Your task to perform on an android device: Go to Google maps Image 0: 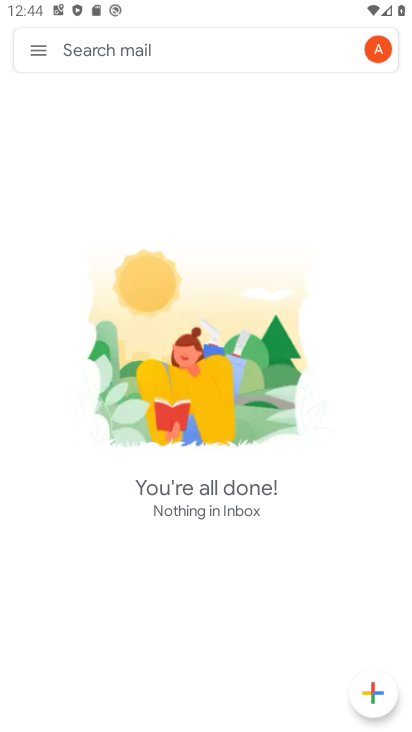
Step 0: press home button
Your task to perform on an android device: Go to Google maps Image 1: 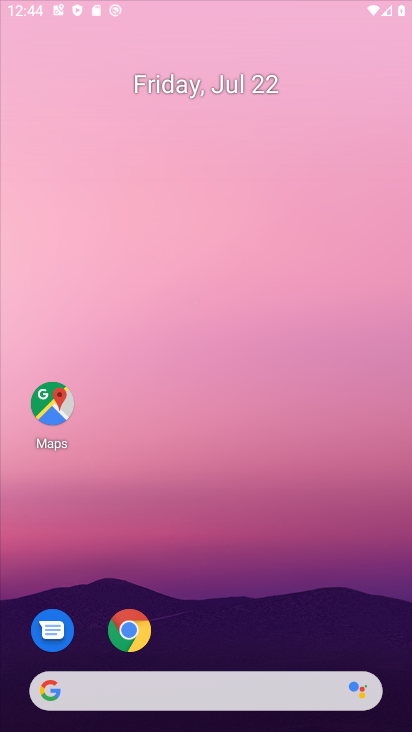
Step 1: drag from (212, 569) to (209, 141)
Your task to perform on an android device: Go to Google maps Image 2: 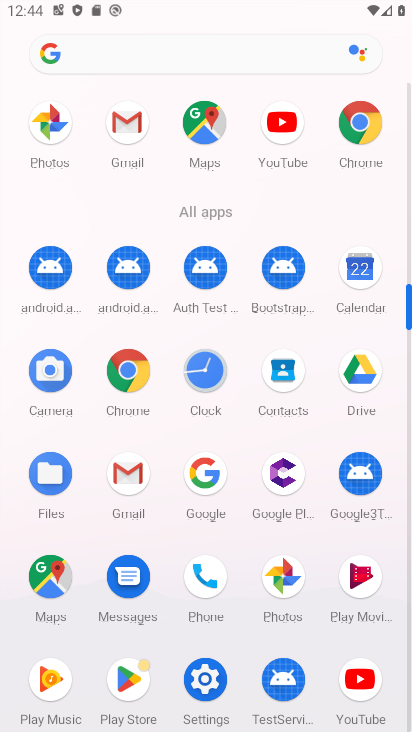
Step 2: click (64, 575)
Your task to perform on an android device: Go to Google maps Image 3: 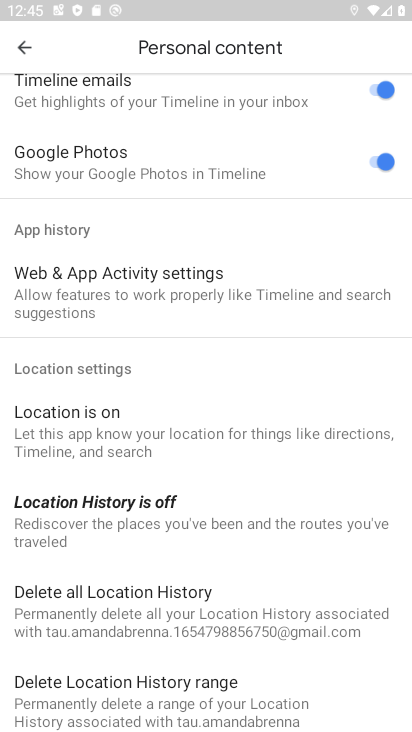
Step 3: task complete